Your task to perform on an android device: install app "Airtel Thanks" Image 0: 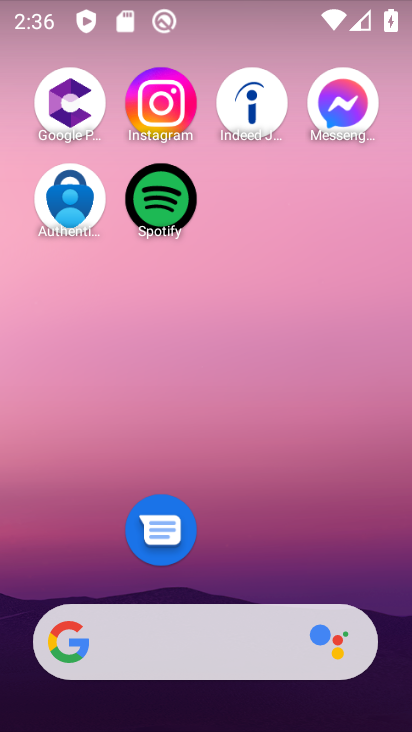
Step 0: drag from (237, 580) to (259, 9)
Your task to perform on an android device: install app "Airtel Thanks" Image 1: 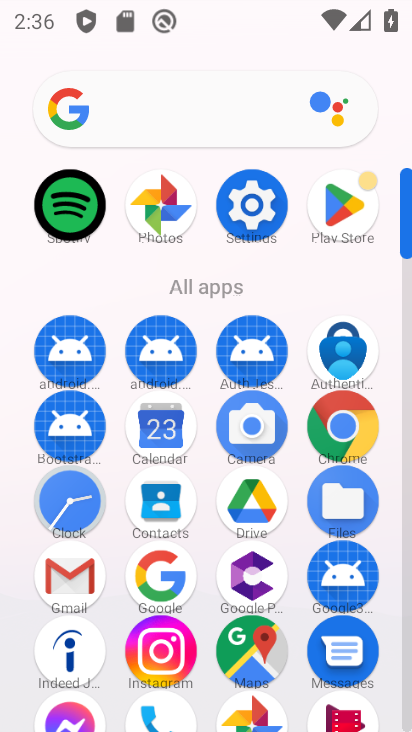
Step 1: click (347, 218)
Your task to perform on an android device: install app "Airtel Thanks" Image 2: 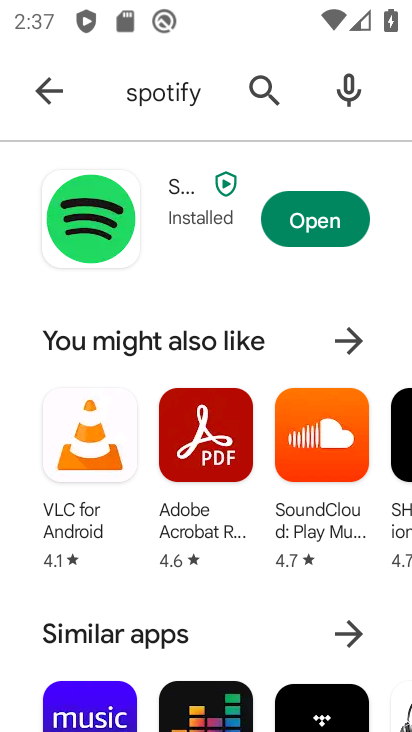
Step 2: click (156, 107)
Your task to perform on an android device: install app "Airtel Thanks" Image 3: 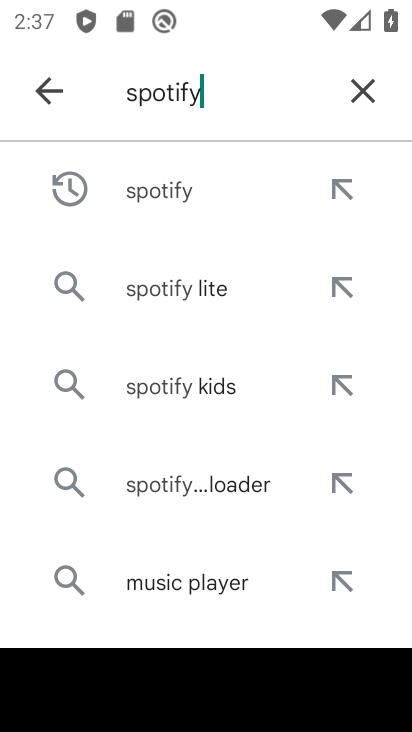
Step 3: click (363, 86)
Your task to perform on an android device: install app "Airtel Thanks" Image 4: 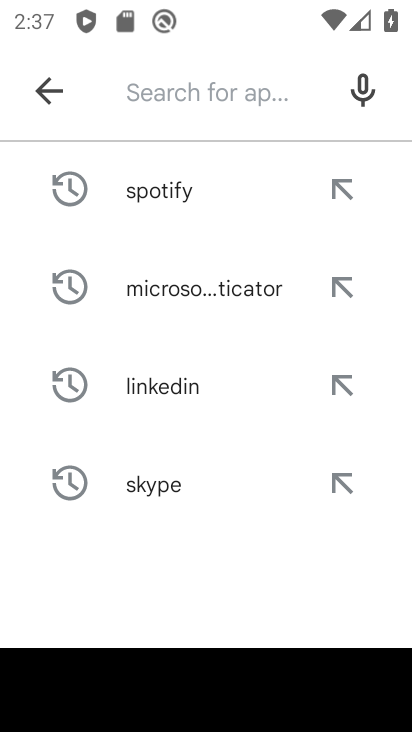
Step 4: type "Airtel Thanks"
Your task to perform on an android device: install app "Airtel Thanks" Image 5: 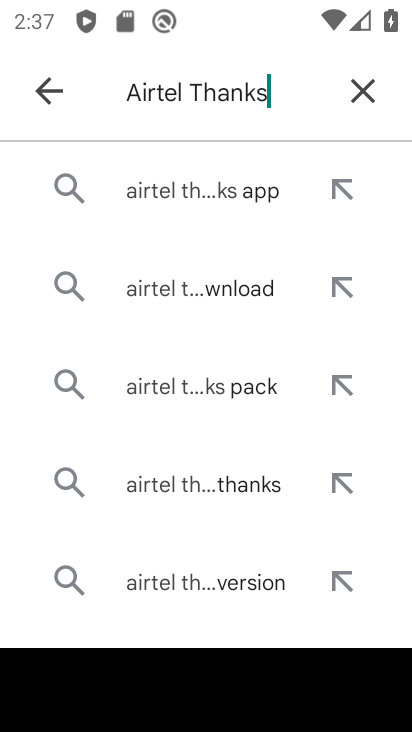
Step 5: click (213, 195)
Your task to perform on an android device: install app "Airtel Thanks" Image 6: 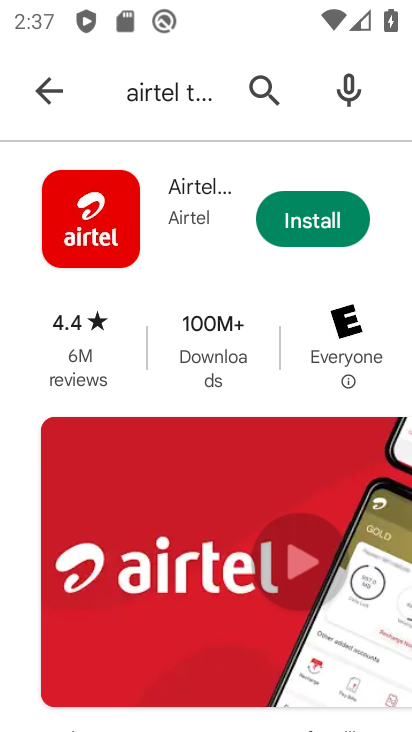
Step 6: click (325, 227)
Your task to perform on an android device: install app "Airtel Thanks" Image 7: 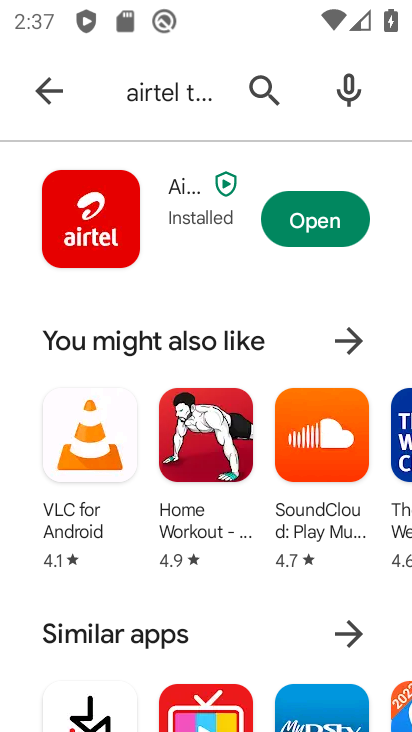
Step 7: task complete